Your task to perform on an android device: open a bookmark in the chrome app Image 0: 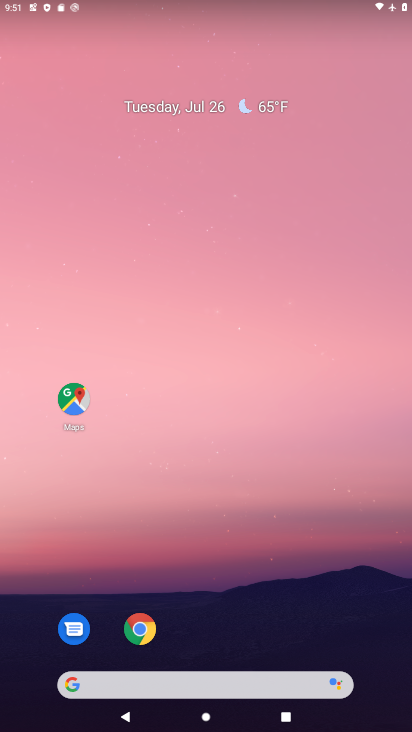
Step 0: drag from (351, 620) to (240, 20)
Your task to perform on an android device: open a bookmark in the chrome app Image 1: 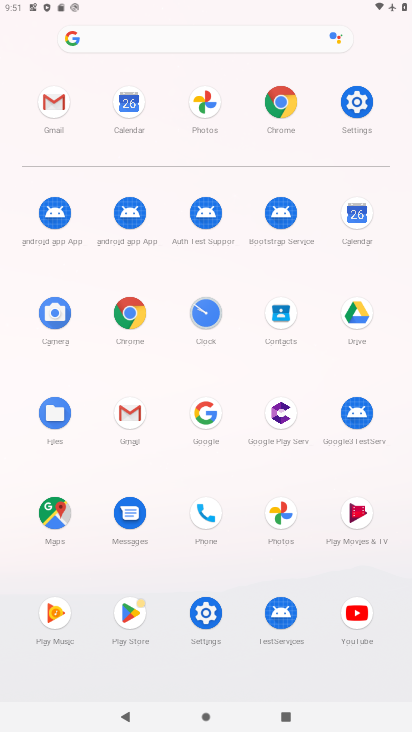
Step 1: click (275, 103)
Your task to perform on an android device: open a bookmark in the chrome app Image 2: 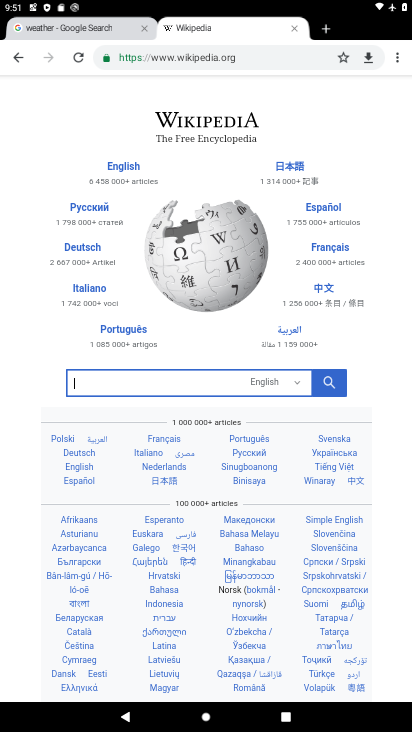
Step 2: drag from (399, 52) to (298, 118)
Your task to perform on an android device: open a bookmark in the chrome app Image 3: 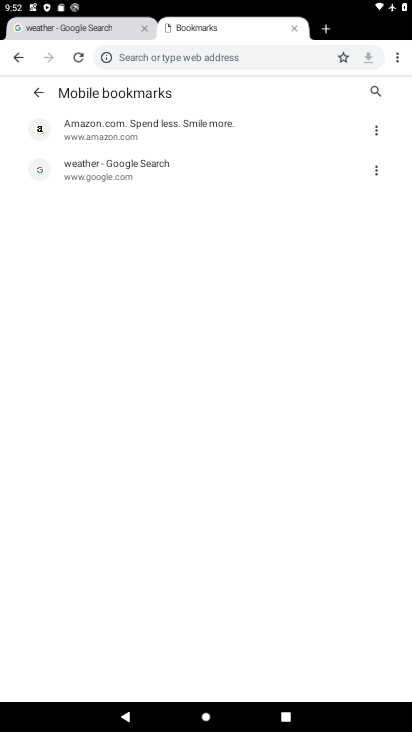
Step 3: click (101, 132)
Your task to perform on an android device: open a bookmark in the chrome app Image 4: 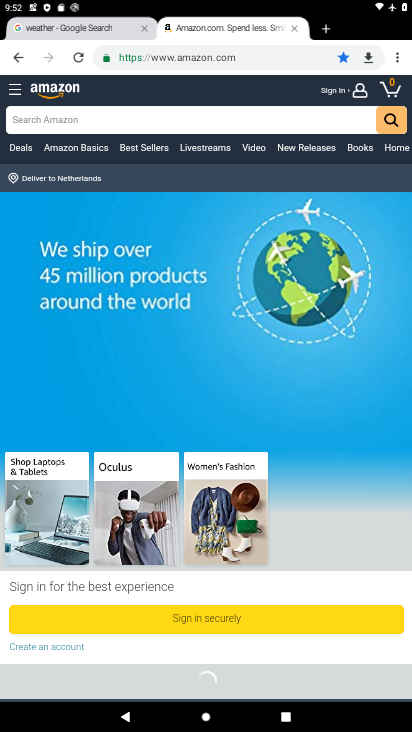
Step 4: task complete